Your task to perform on an android device: toggle notification dots Image 0: 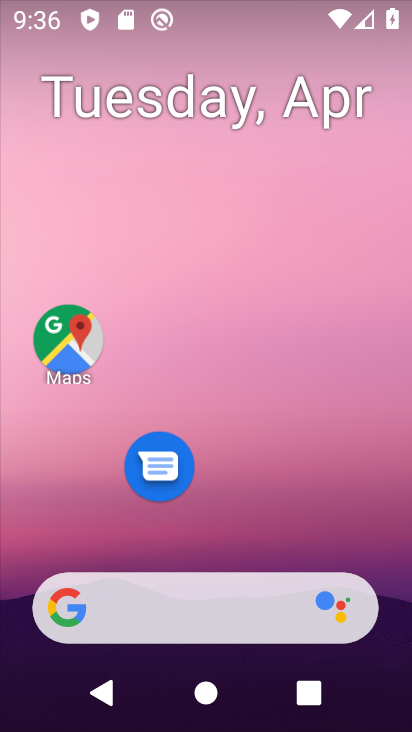
Step 0: drag from (301, 553) to (251, 195)
Your task to perform on an android device: toggle notification dots Image 1: 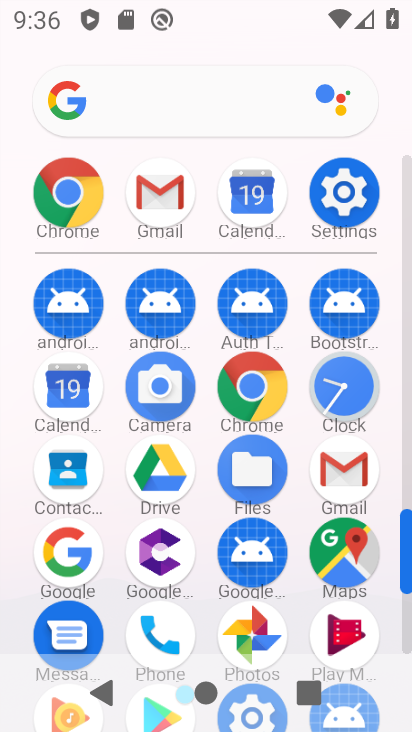
Step 1: click (345, 213)
Your task to perform on an android device: toggle notification dots Image 2: 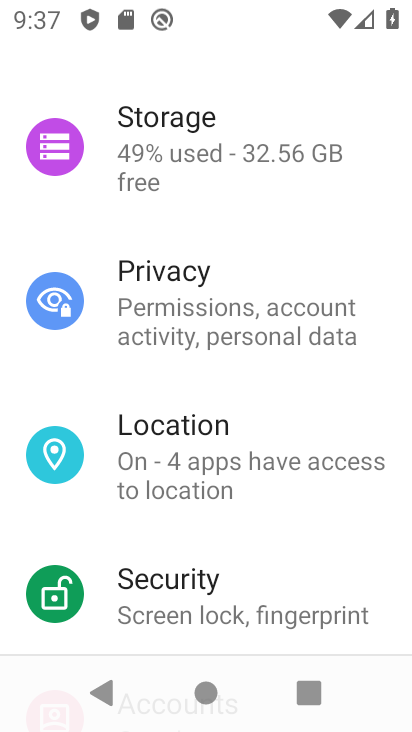
Step 2: drag from (206, 249) to (224, 541)
Your task to perform on an android device: toggle notification dots Image 3: 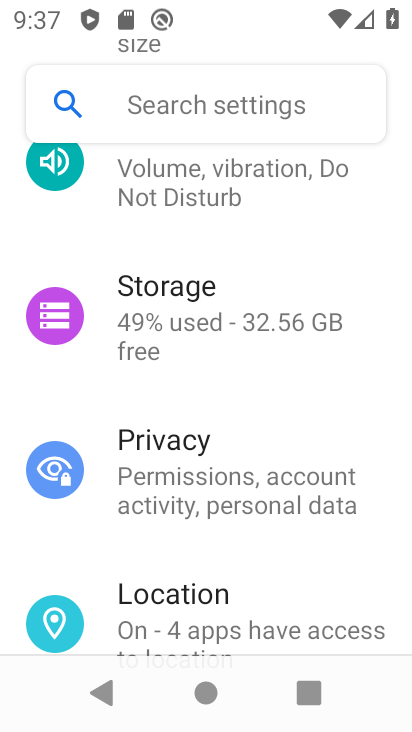
Step 3: drag from (230, 268) to (220, 485)
Your task to perform on an android device: toggle notification dots Image 4: 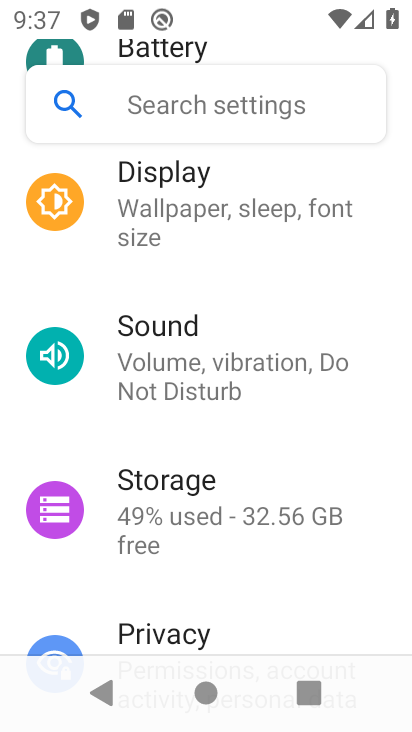
Step 4: drag from (246, 231) to (246, 458)
Your task to perform on an android device: toggle notification dots Image 5: 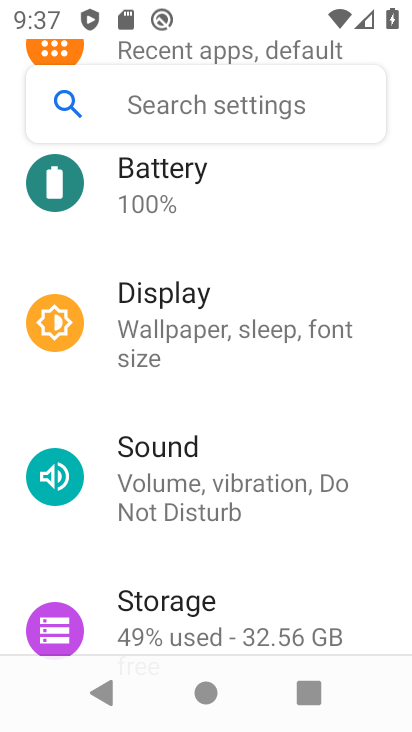
Step 5: drag from (245, 254) to (242, 342)
Your task to perform on an android device: toggle notification dots Image 6: 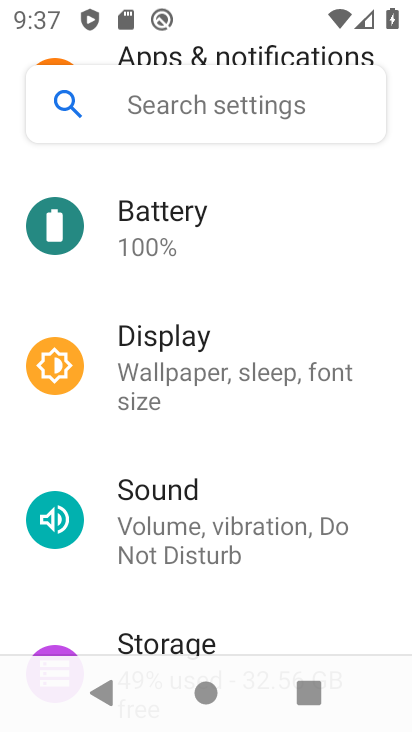
Step 6: drag from (211, 230) to (184, 550)
Your task to perform on an android device: toggle notification dots Image 7: 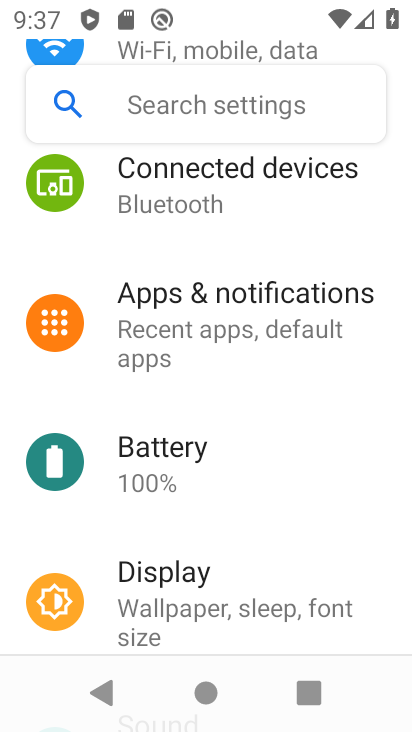
Step 7: drag from (212, 236) to (188, 612)
Your task to perform on an android device: toggle notification dots Image 8: 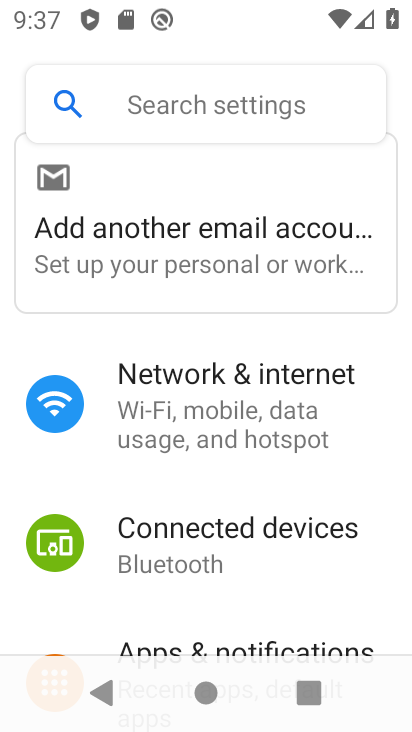
Step 8: drag from (188, 548) to (235, 359)
Your task to perform on an android device: toggle notification dots Image 9: 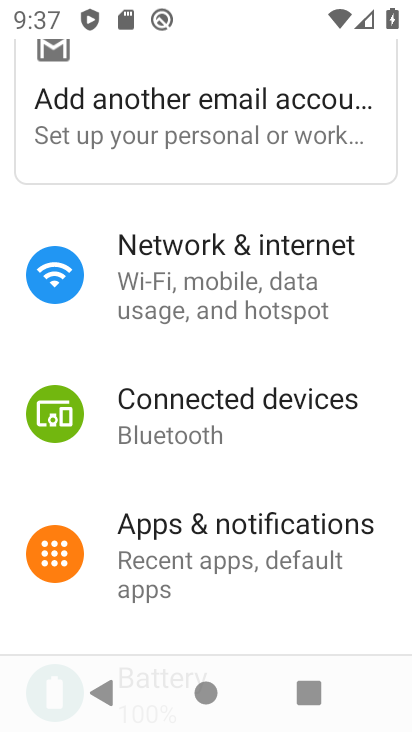
Step 9: click (221, 542)
Your task to perform on an android device: toggle notification dots Image 10: 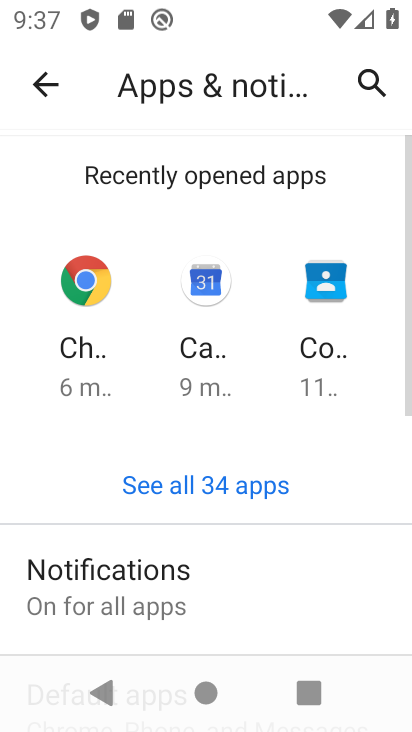
Step 10: drag from (235, 580) to (257, 232)
Your task to perform on an android device: toggle notification dots Image 11: 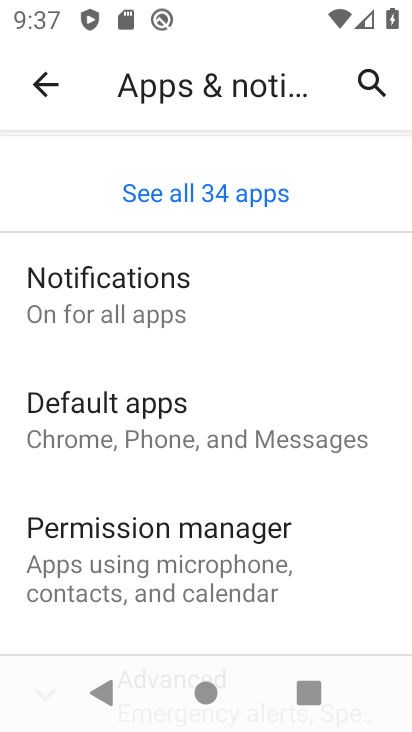
Step 11: drag from (196, 552) to (218, 390)
Your task to perform on an android device: toggle notification dots Image 12: 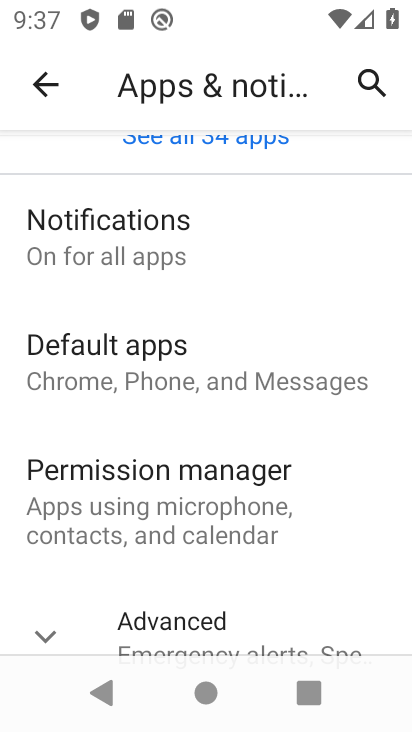
Step 12: click (273, 225)
Your task to perform on an android device: toggle notification dots Image 13: 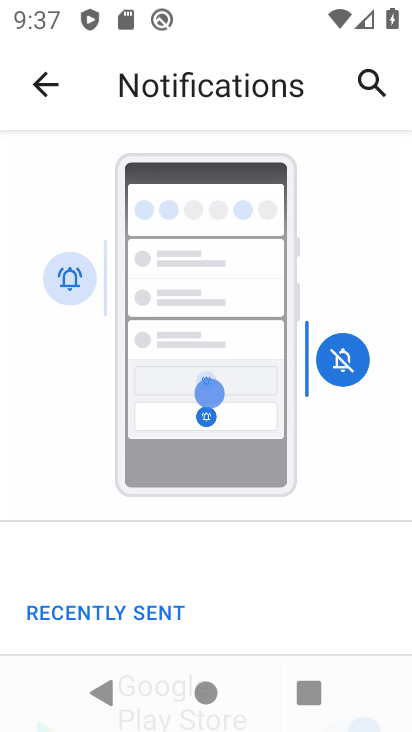
Step 13: drag from (169, 570) to (207, 163)
Your task to perform on an android device: toggle notification dots Image 14: 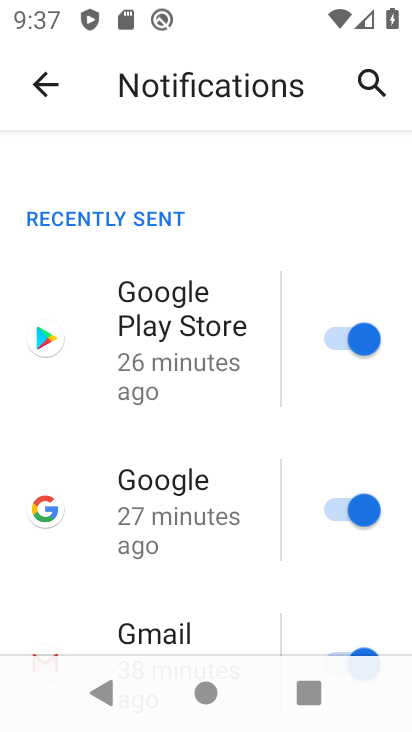
Step 14: drag from (223, 577) to (247, 274)
Your task to perform on an android device: toggle notification dots Image 15: 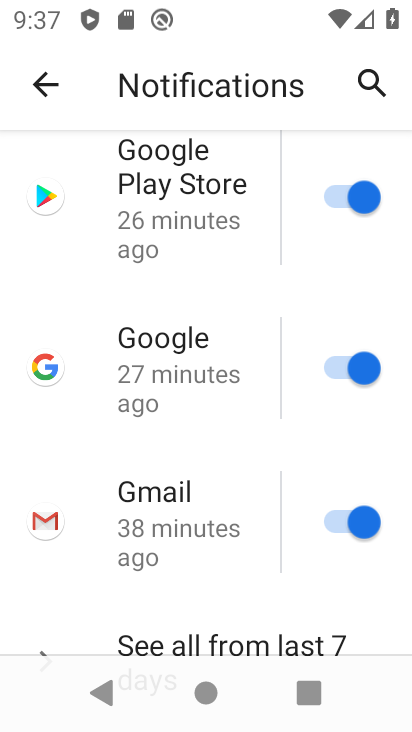
Step 15: drag from (234, 574) to (243, 335)
Your task to perform on an android device: toggle notification dots Image 16: 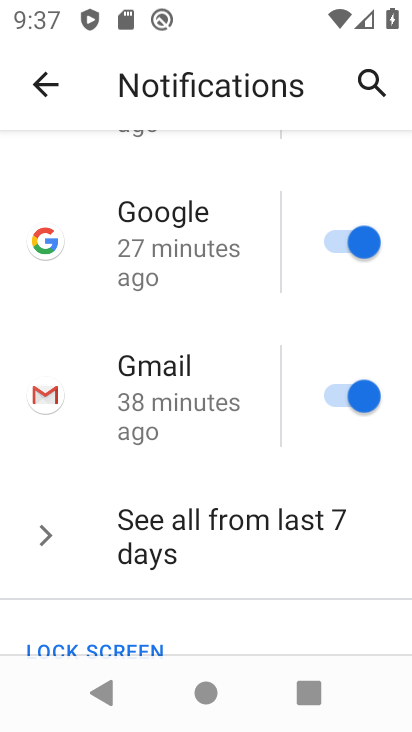
Step 16: drag from (203, 602) to (226, 250)
Your task to perform on an android device: toggle notification dots Image 17: 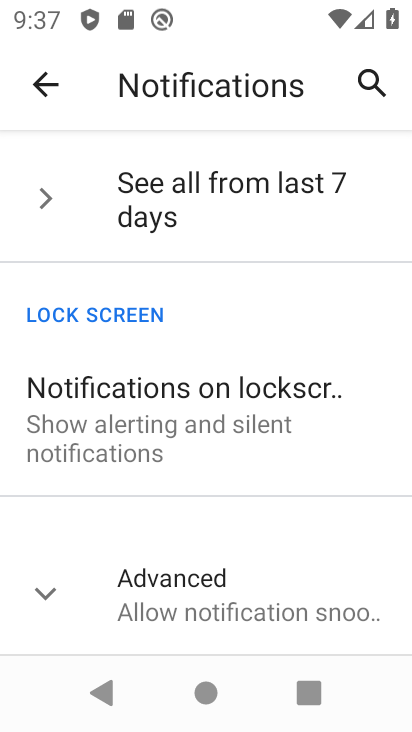
Step 17: click (210, 559)
Your task to perform on an android device: toggle notification dots Image 18: 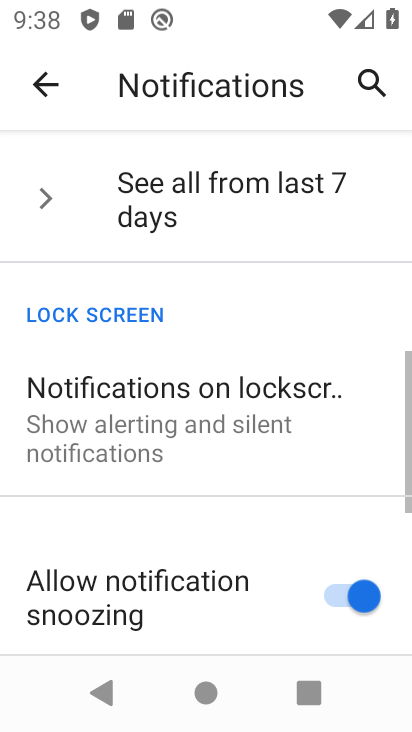
Step 18: drag from (243, 512) to (246, 263)
Your task to perform on an android device: toggle notification dots Image 19: 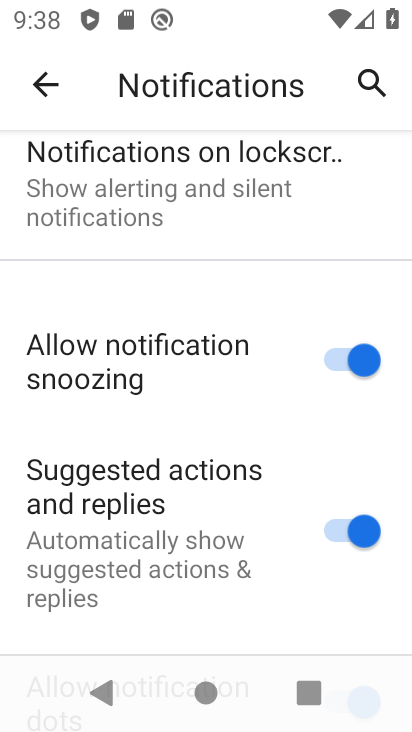
Step 19: drag from (207, 523) to (232, 364)
Your task to perform on an android device: toggle notification dots Image 20: 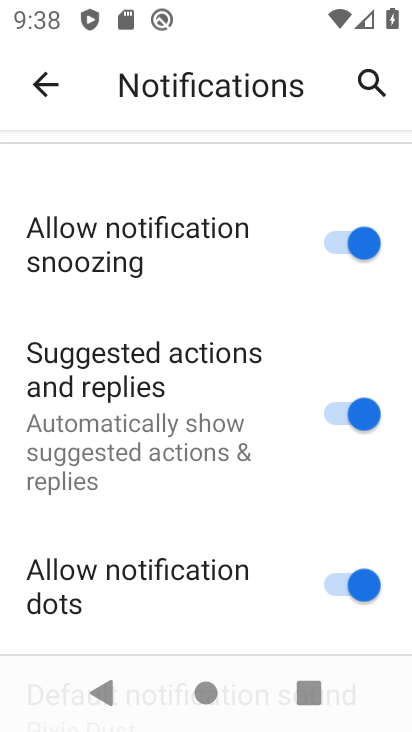
Step 20: click (324, 573)
Your task to perform on an android device: toggle notification dots Image 21: 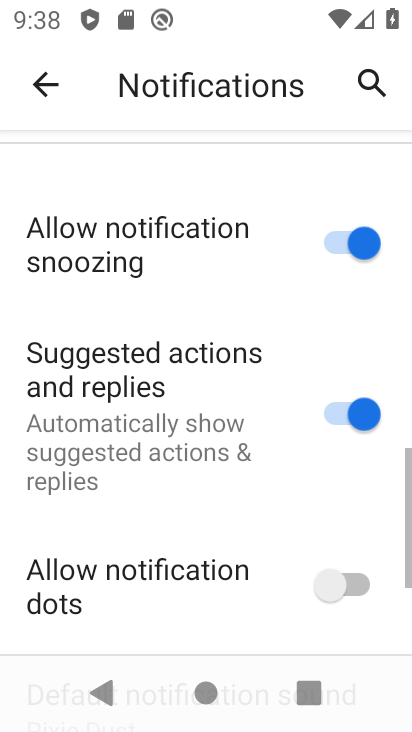
Step 21: task complete